Your task to perform on an android device: Clear all items from cart on ebay. Search for bose soundlink on ebay, select the first entry, add it to the cart, then select checkout. Image 0: 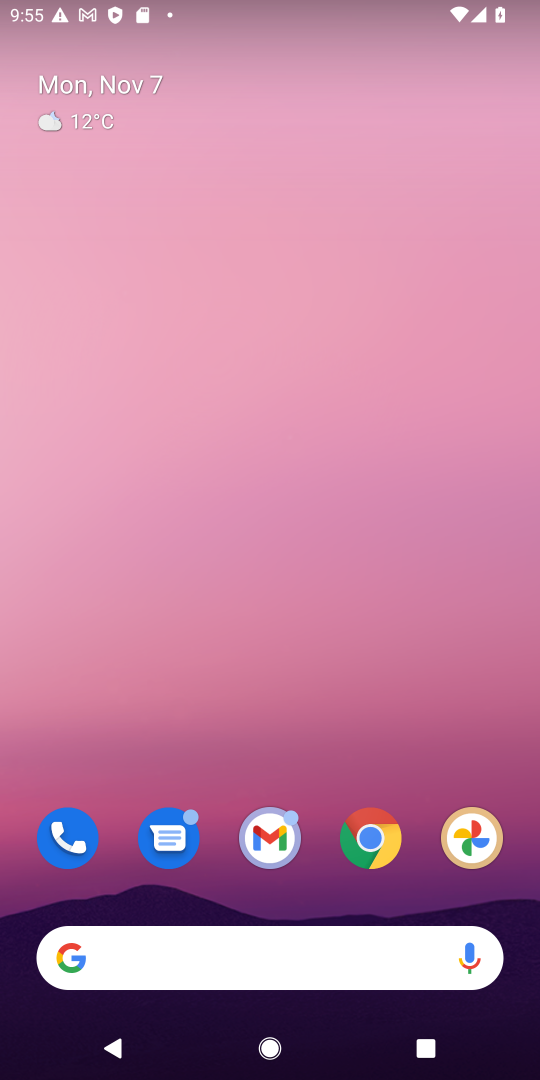
Step 0: click (317, 958)
Your task to perform on an android device: Clear all items from cart on ebay. Search for bose soundlink on ebay, select the first entry, add it to the cart, then select checkout. Image 1: 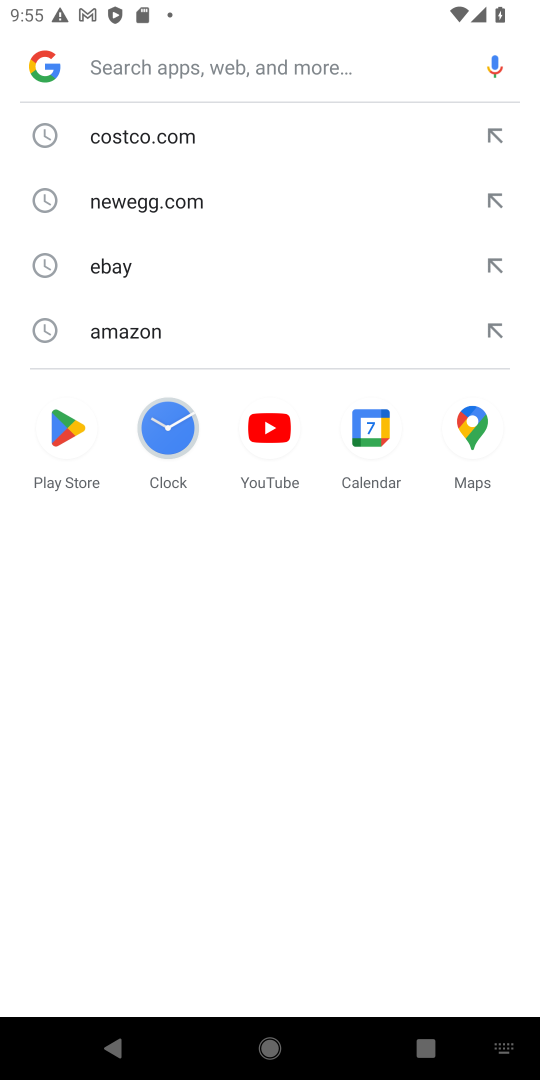
Step 1: click (114, 261)
Your task to perform on an android device: Clear all items from cart on ebay. Search for bose soundlink on ebay, select the first entry, add it to the cart, then select checkout. Image 2: 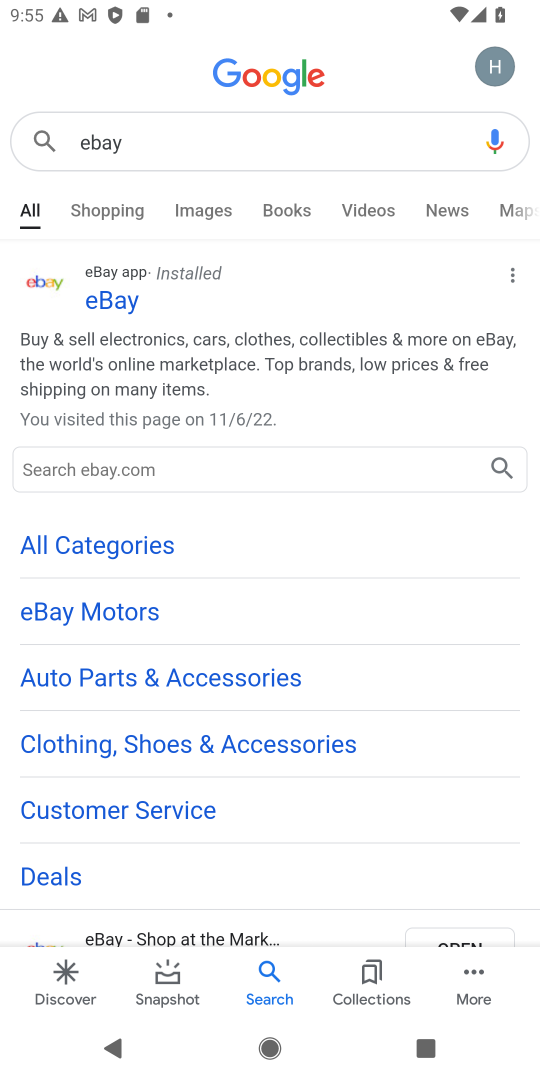
Step 2: click (181, 469)
Your task to perform on an android device: Clear all items from cart on ebay. Search for bose soundlink on ebay, select the first entry, add it to the cart, then select checkout. Image 3: 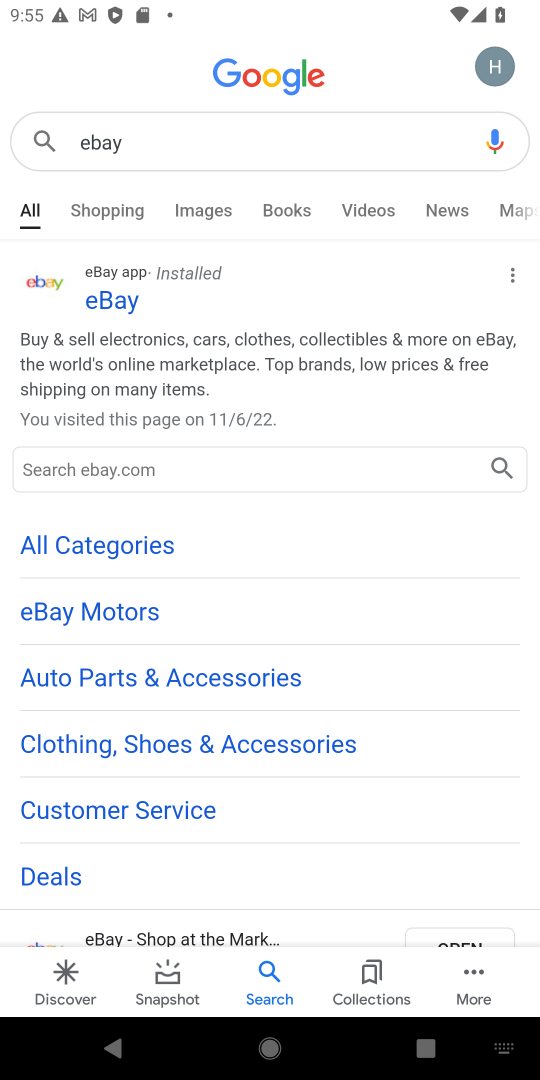
Step 3: type " bose soundlink "
Your task to perform on an android device: Clear all items from cart on ebay. Search for bose soundlink on ebay, select the first entry, add it to the cart, then select checkout. Image 4: 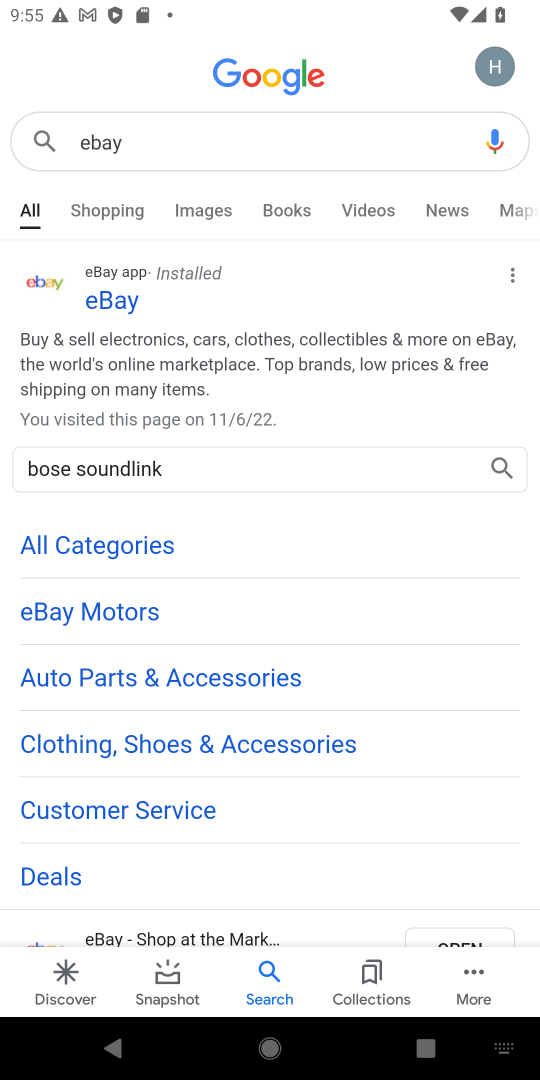
Step 4: click (494, 465)
Your task to perform on an android device: Clear all items from cart on ebay. Search for bose soundlink on ebay, select the first entry, add it to the cart, then select checkout. Image 5: 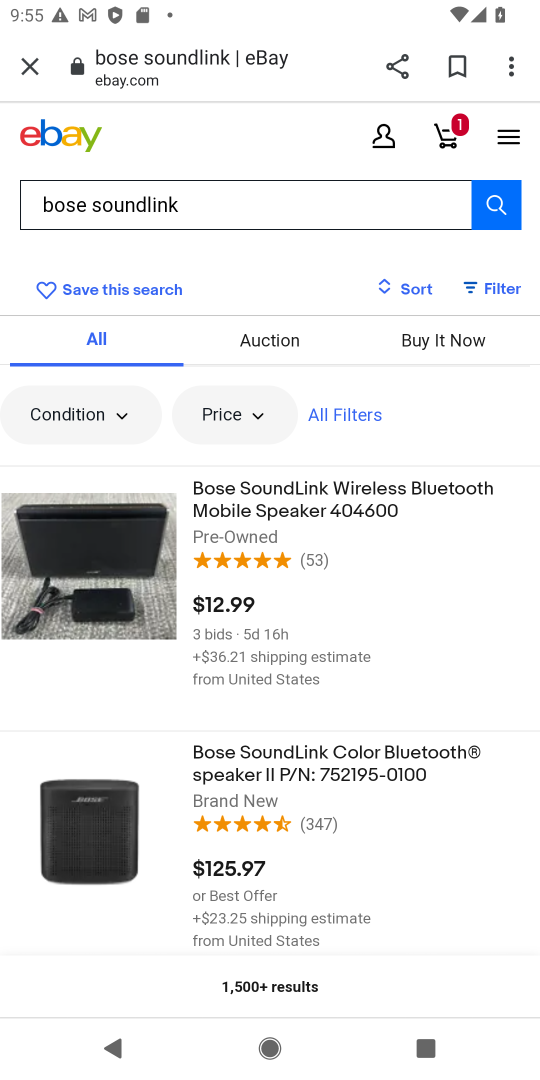
Step 5: click (323, 499)
Your task to perform on an android device: Clear all items from cart on ebay. Search for bose soundlink on ebay, select the first entry, add it to the cart, then select checkout. Image 6: 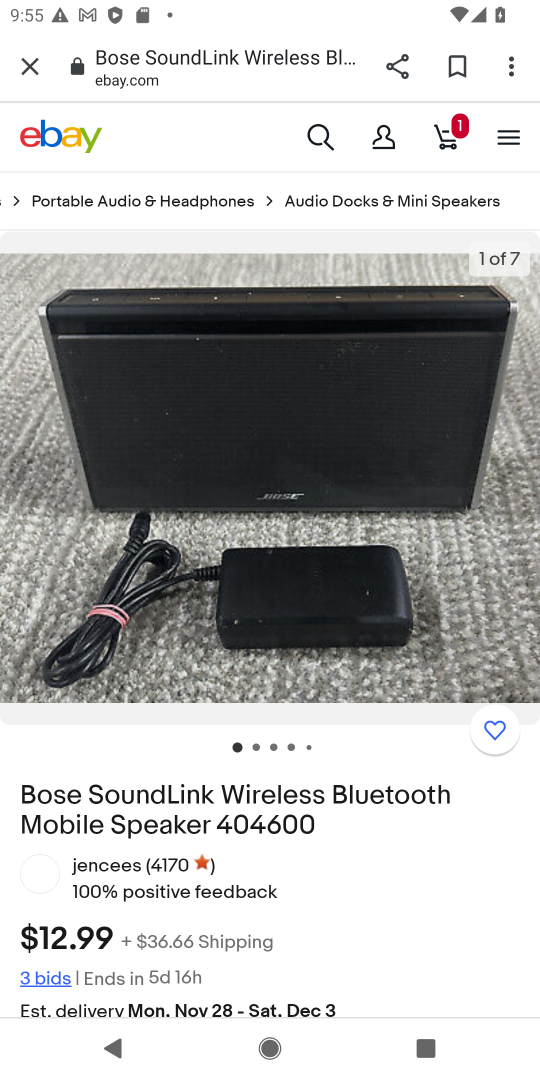
Step 6: drag from (385, 922) to (362, 481)
Your task to perform on an android device: Clear all items from cart on ebay. Search for bose soundlink on ebay, select the first entry, add it to the cart, then select checkout. Image 7: 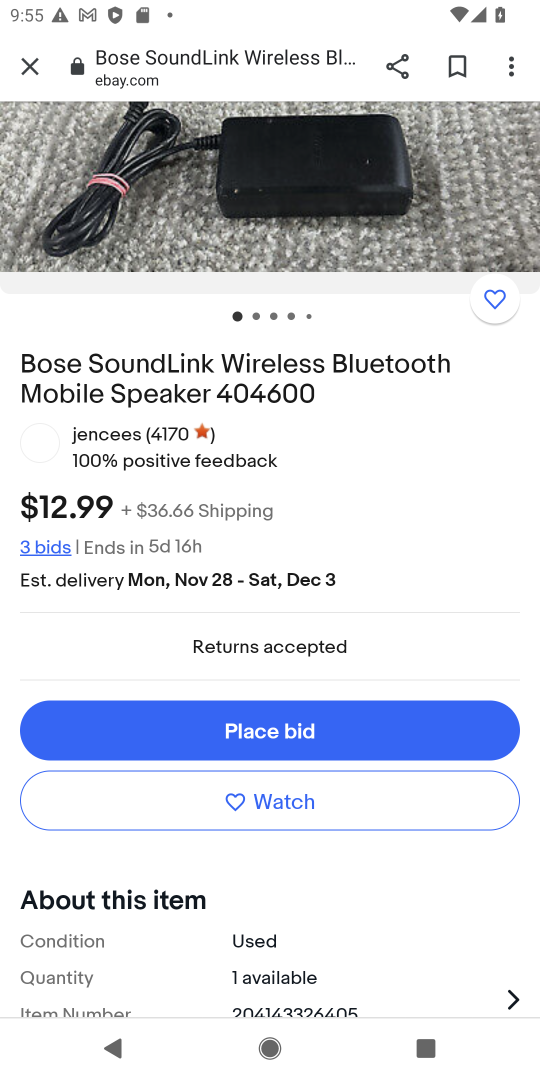
Step 7: press back button
Your task to perform on an android device: Clear all items from cart on ebay. Search for bose soundlink on ebay, select the first entry, add it to the cart, then select checkout. Image 8: 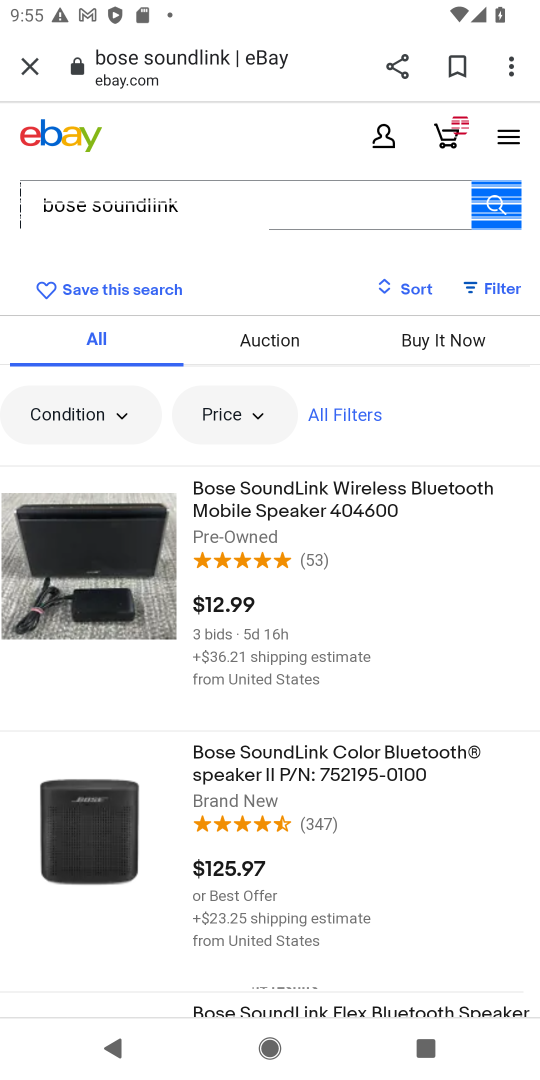
Step 8: click (329, 765)
Your task to perform on an android device: Clear all items from cart on ebay. Search for bose soundlink on ebay, select the first entry, add it to the cart, then select checkout. Image 9: 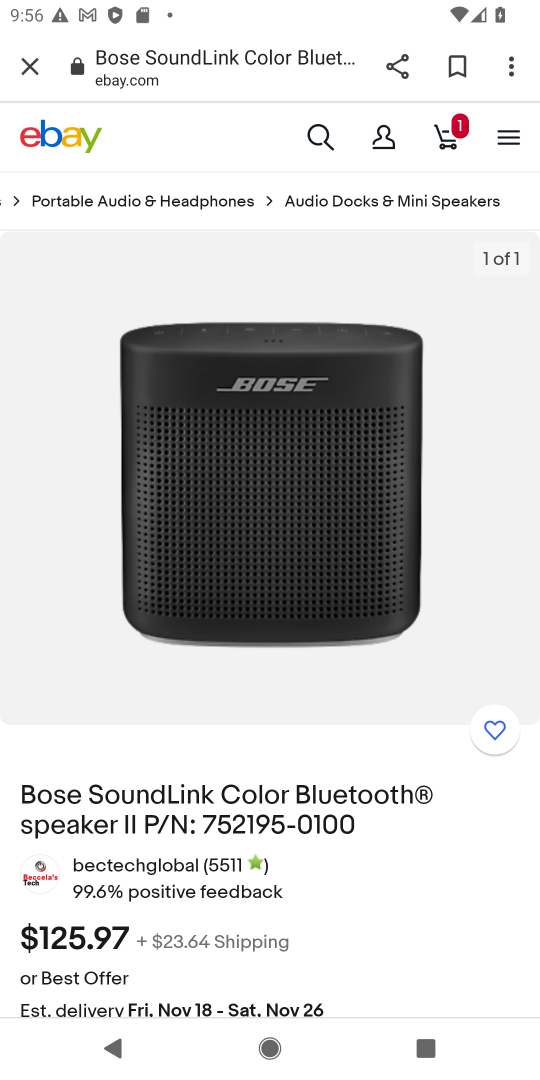
Step 9: drag from (414, 897) to (391, 408)
Your task to perform on an android device: Clear all items from cart on ebay. Search for bose soundlink on ebay, select the first entry, add it to the cart, then select checkout. Image 10: 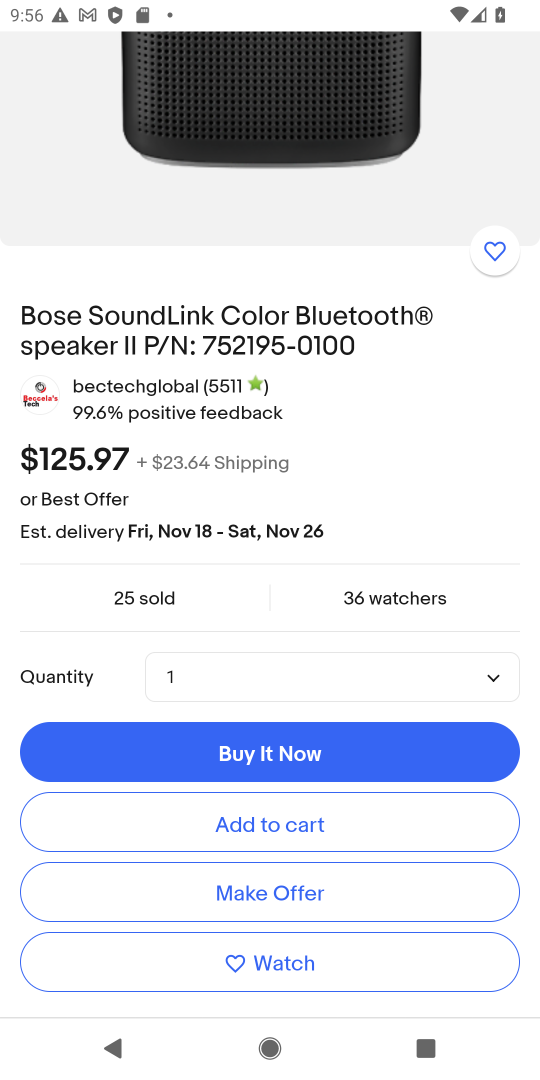
Step 10: click (346, 810)
Your task to perform on an android device: Clear all items from cart on ebay. Search for bose soundlink on ebay, select the first entry, add it to the cart, then select checkout. Image 11: 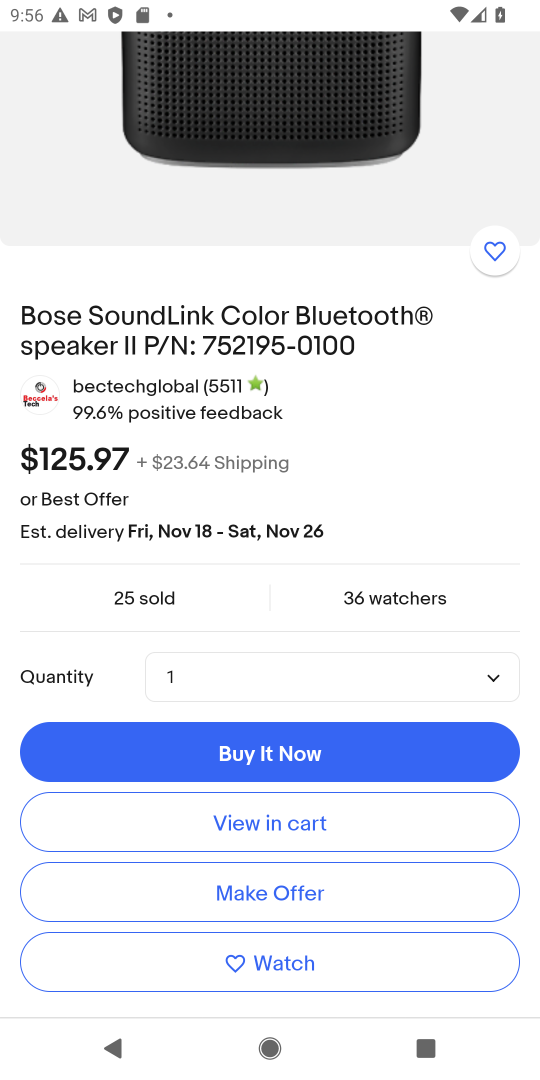
Step 11: click (346, 810)
Your task to perform on an android device: Clear all items from cart on ebay. Search for bose soundlink on ebay, select the first entry, add it to the cart, then select checkout. Image 12: 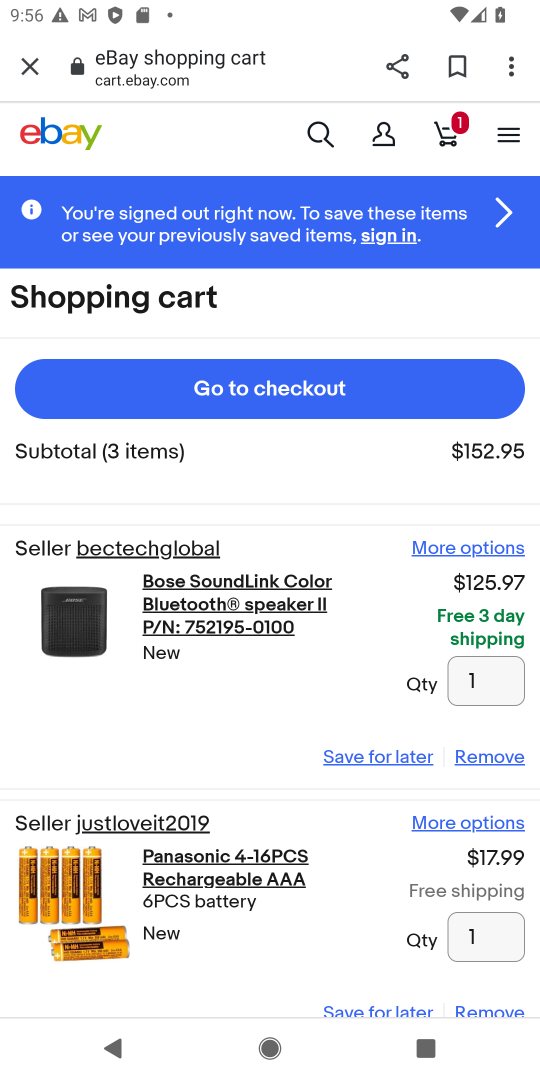
Step 12: drag from (446, 953) to (436, 668)
Your task to perform on an android device: Clear all items from cart on ebay. Search for bose soundlink on ebay, select the first entry, add it to the cart, then select checkout. Image 13: 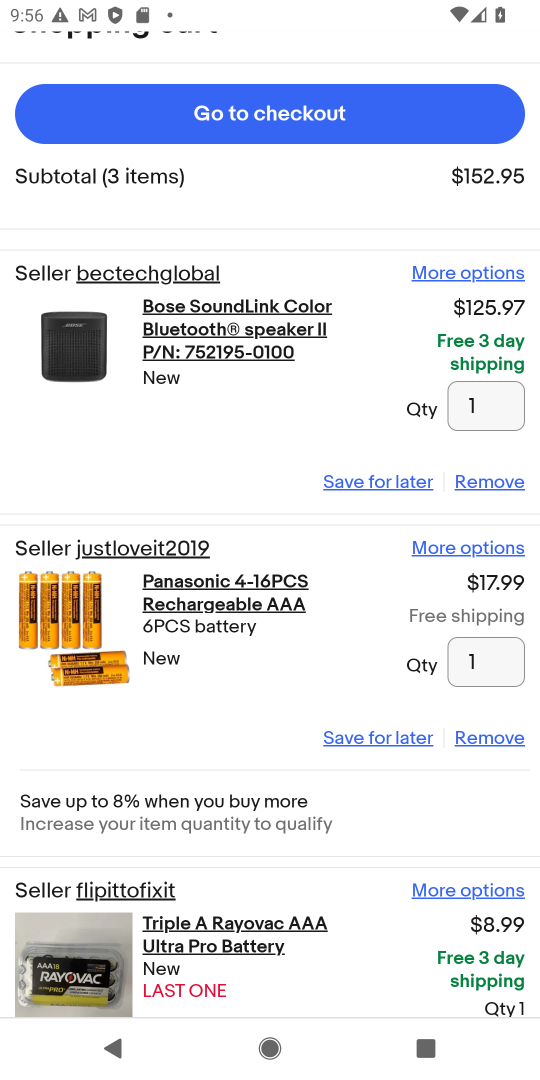
Step 13: click (489, 738)
Your task to perform on an android device: Clear all items from cart on ebay. Search for bose soundlink on ebay, select the first entry, add it to the cart, then select checkout. Image 14: 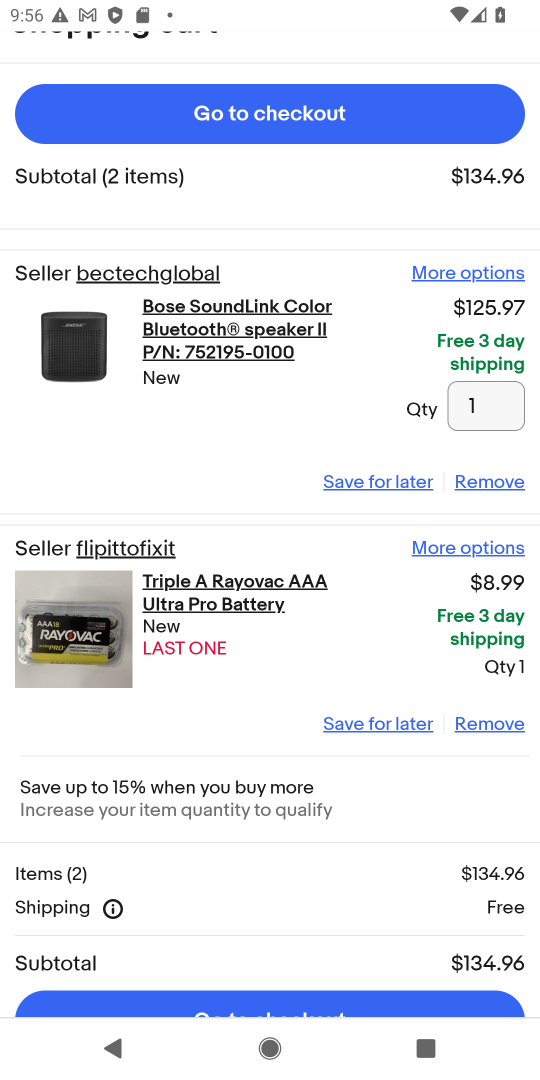
Step 14: click (487, 720)
Your task to perform on an android device: Clear all items from cart on ebay. Search for bose soundlink on ebay, select the first entry, add it to the cart, then select checkout. Image 15: 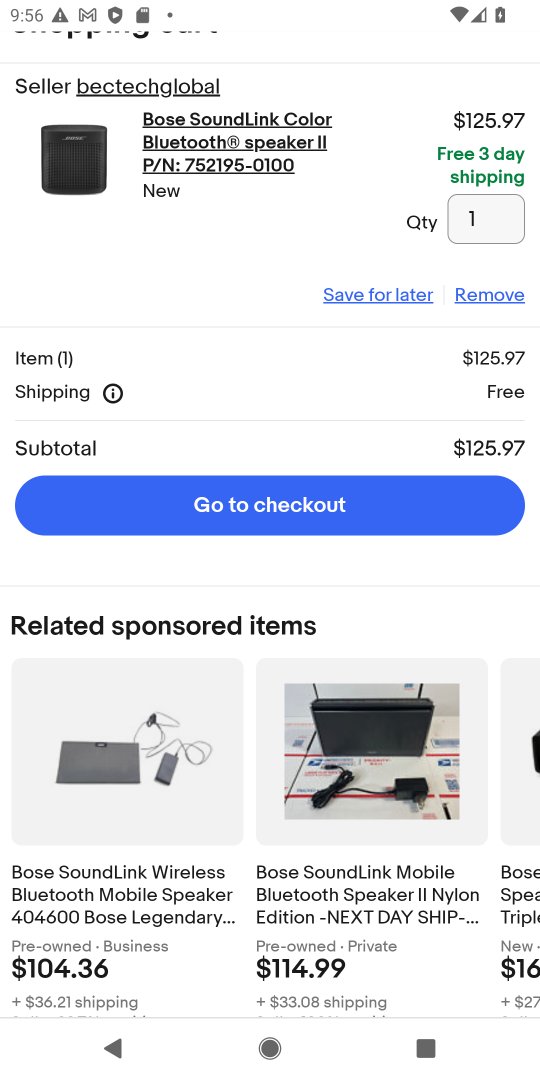
Step 15: task complete